Your task to perform on an android device: Go to Android settings Image 0: 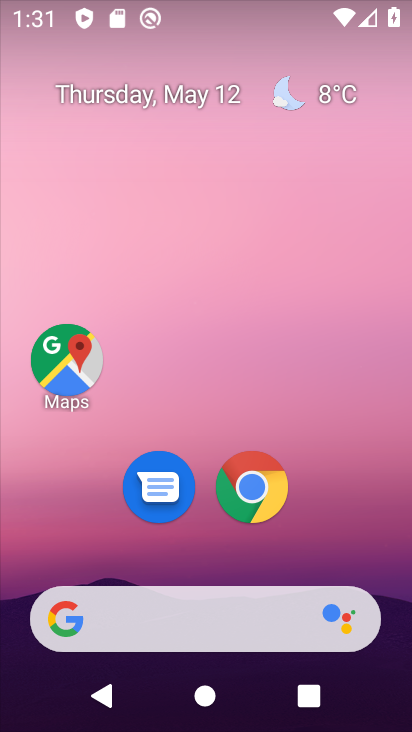
Step 0: drag from (290, 561) to (295, 34)
Your task to perform on an android device: Go to Android settings Image 1: 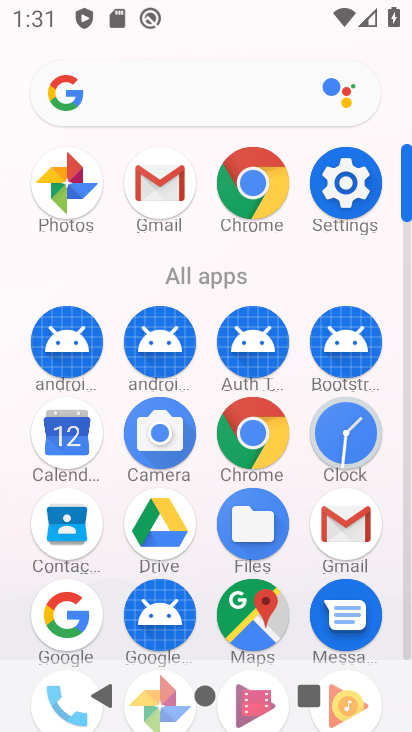
Step 1: click (345, 203)
Your task to perform on an android device: Go to Android settings Image 2: 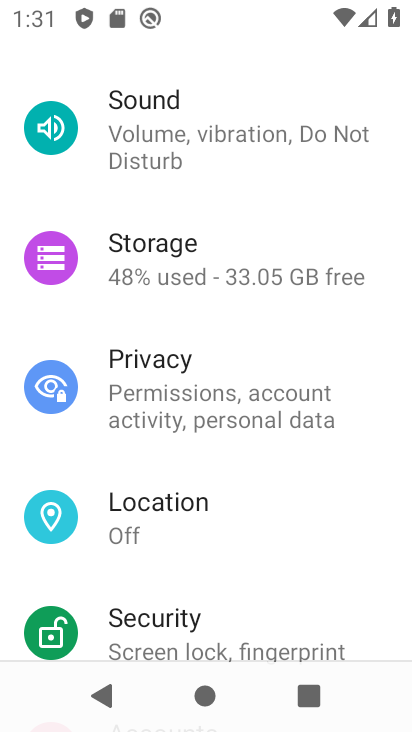
Step 2: drag from (160, 596) to (186, 298)
Your task to perform on an android device: Go to Android settings Image 3: 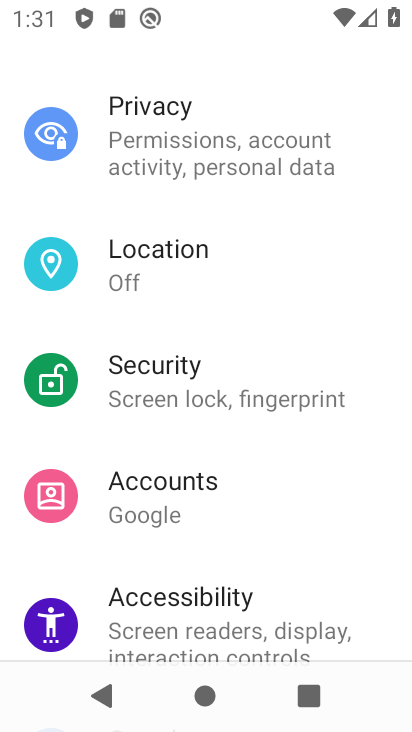
Step 3: drag from (122, 597) to (147, 288)
Your task to perform on an android device: Go to Android settings Image 4: 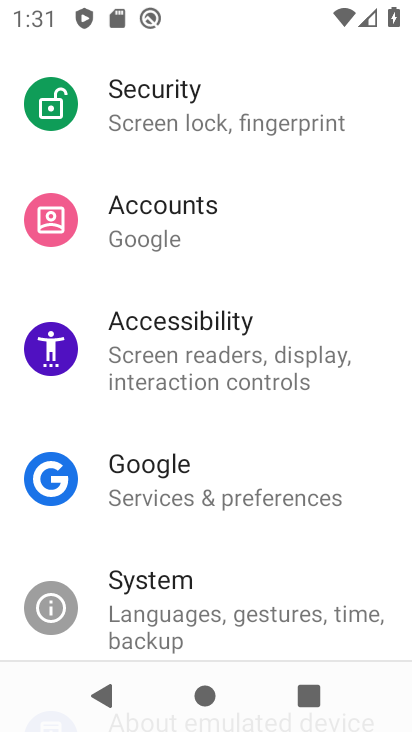
Step 4: click (144, 599)
Your task to perform on an android device: Go to Android settings Image 5: 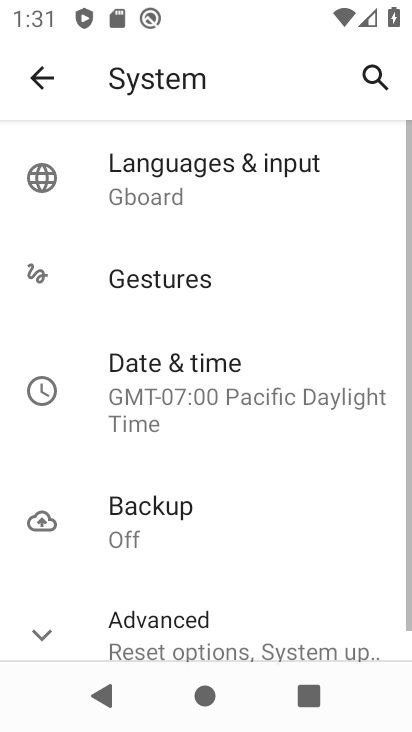
Step 5: task complete